Your task to perform on an android device: turn on bluetooth scan Image 0: 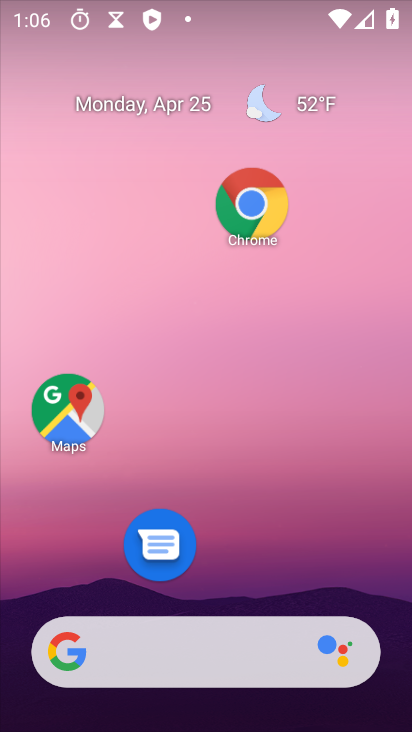
Step 0: drag from (318, 686) to (289, 231)
Your task to perform on an android device: turn on bluetooth scan Image 1: 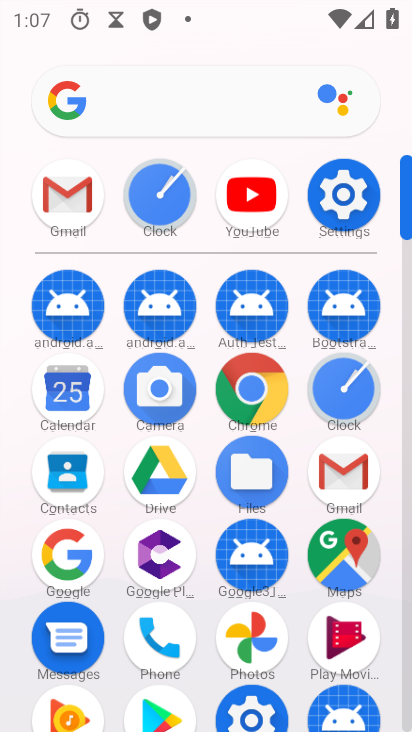
Step 1: click (342, 200)
Your task to perform on an android device: turn on bluetooth scan Image 2: 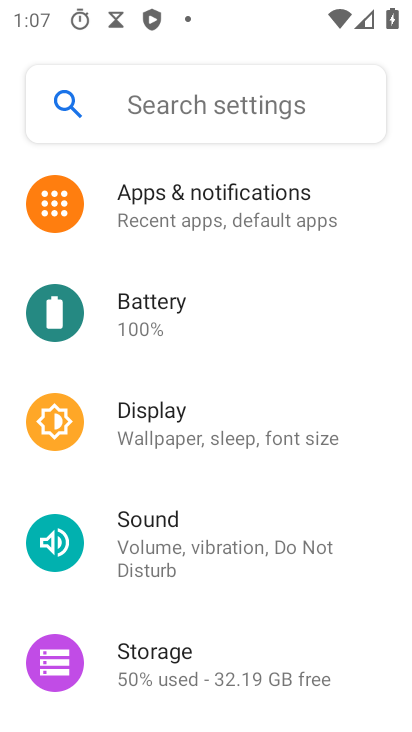
Step 2: click (216, 123)
Your task to perform on an android device: turn on bluetooth scan Image 3: 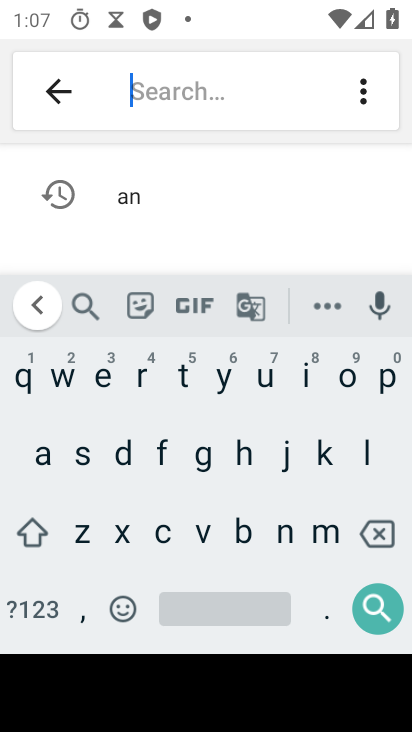
Step 3: click (366, 454)
Your task to perform on an android device: turn on bluetooth scan Image 4: 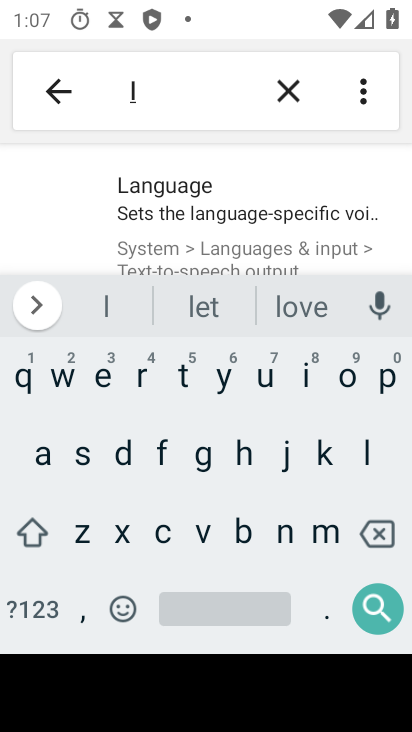
Step 4: click (345, 389)
Your task to perform on an android device: turn on bluetooth scan Image 5: 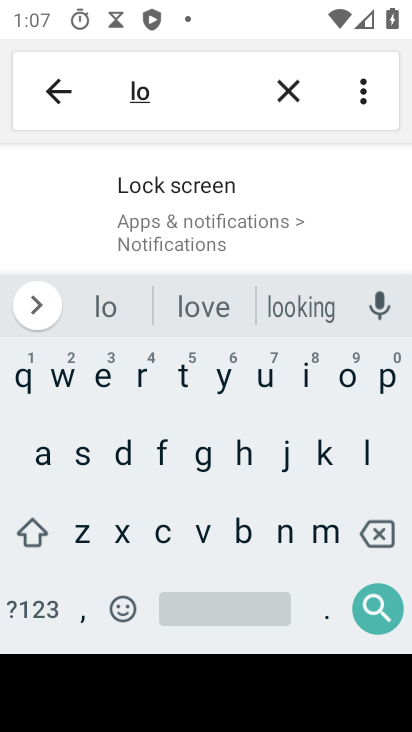
Step 5: click (160, 530)
Your task to perform on an android device: turn on bluetooth scan Image 6: 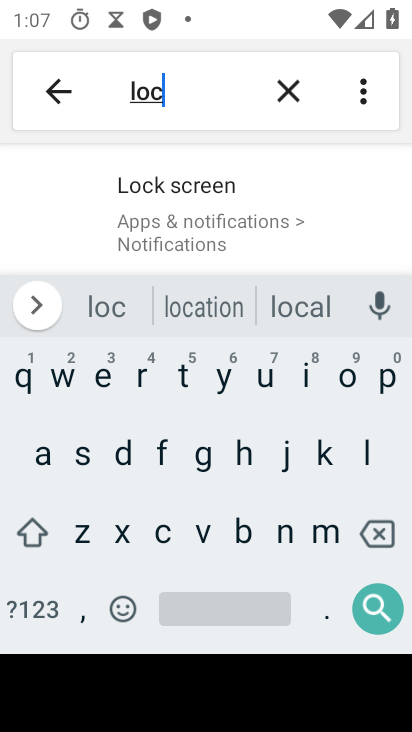
Step 6: click (42, 460)
Your task to perform on an android device: turn on bluetooth scan Image 7: 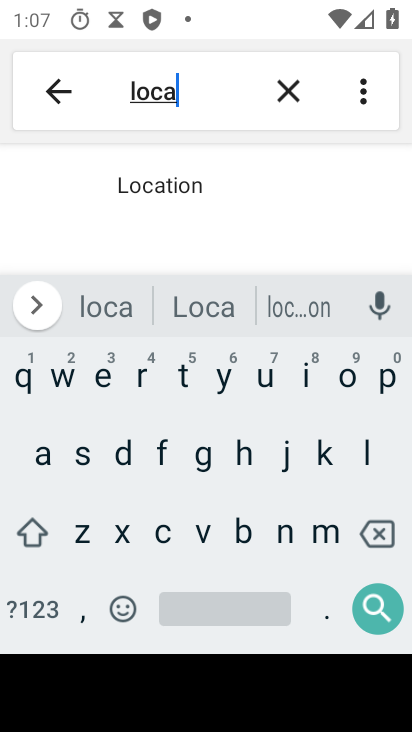
Step 7: press back button
Your task to perform on an android device: turn on bluetooth scan Image 8: 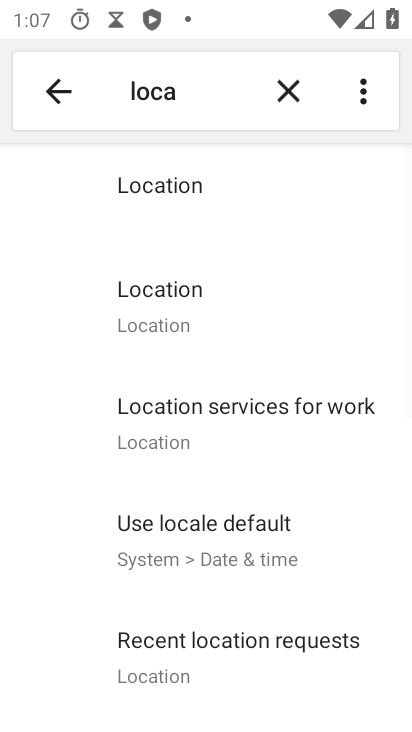
Step 8: click (148, 325)
Your task to perform on an android device: turn on bluetooth scan Image 9: 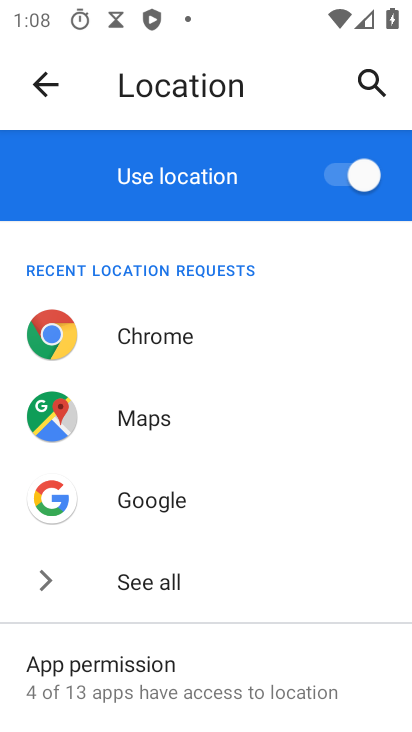
Step 9: drag from (227, 599) to (232, 360)
Your task to perform on an android device: turn on bluetooth scan Image 10: 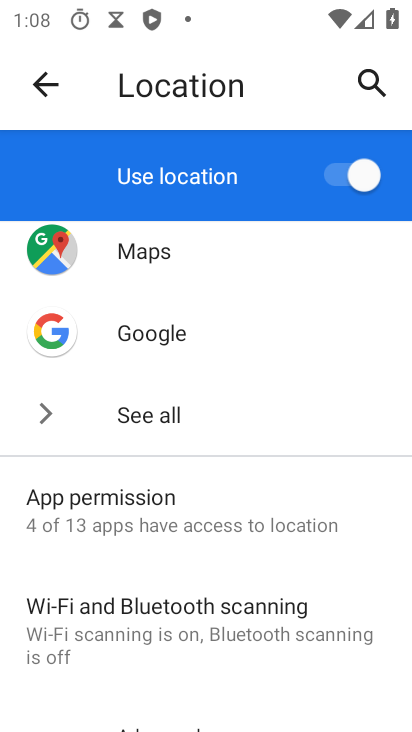
Step 10: click (185, 595)
Your task to perform on an android device: turn on bluetooth scan Image 11: 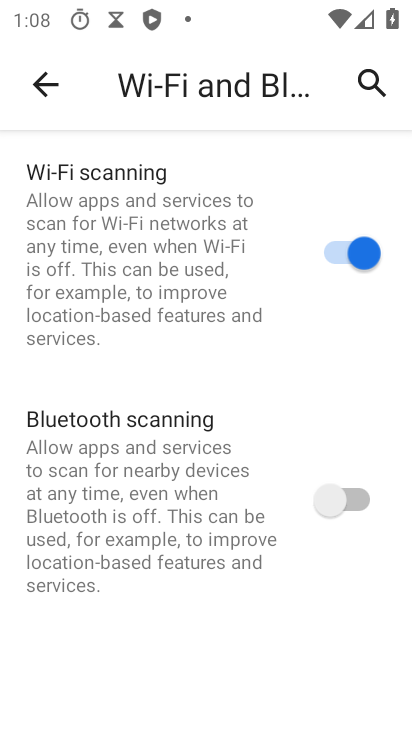
Step 11: click (310, 503)
Your task to perform on an android device: turn on bluetooth scan Image 12: 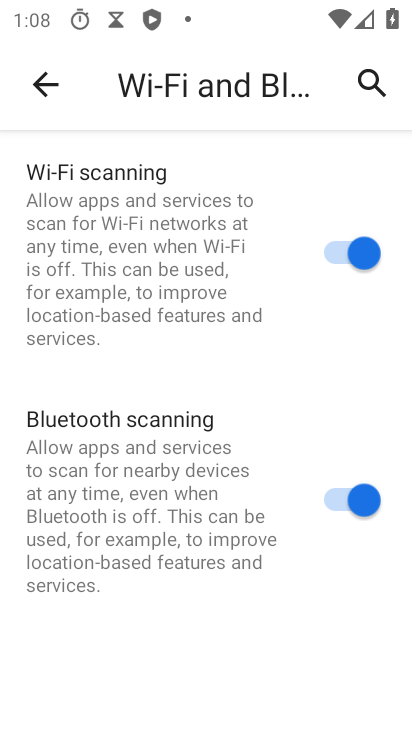
Step 12: task complete